Your task to perform on an android device: turn off sleep mode Image 0: 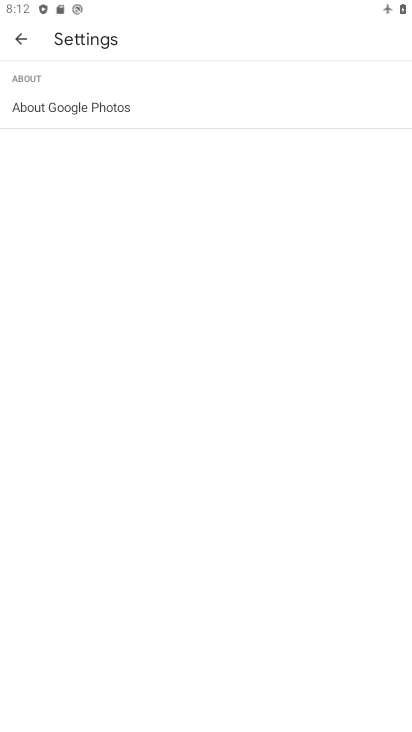
Step 0: press home button
Your task to perform on an android device: turn off sleep mode Image 1: 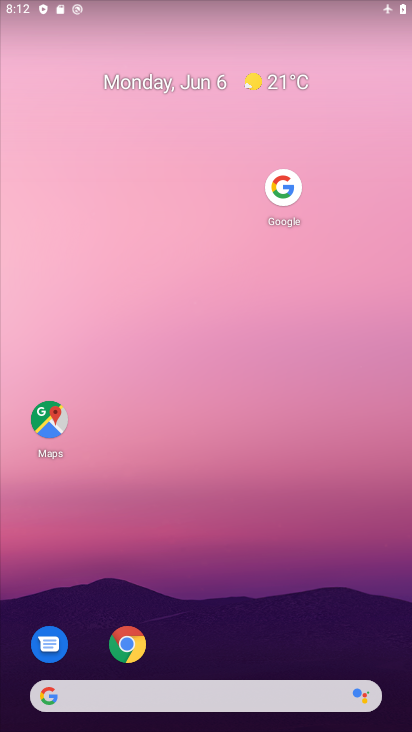
Step 1: drag from (212, 674) to (203, 37)
Your task to perform on an android device: turn off sleep mode Image 2: 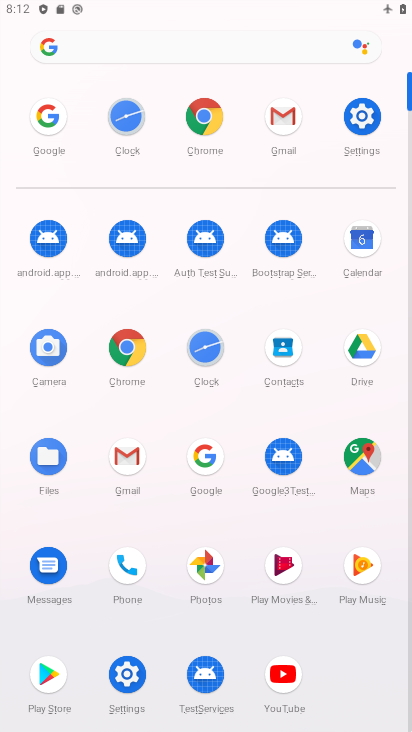
Step 2: click (136, 673)
Your task to perform on an android device: turn off sleep mode Image 3: 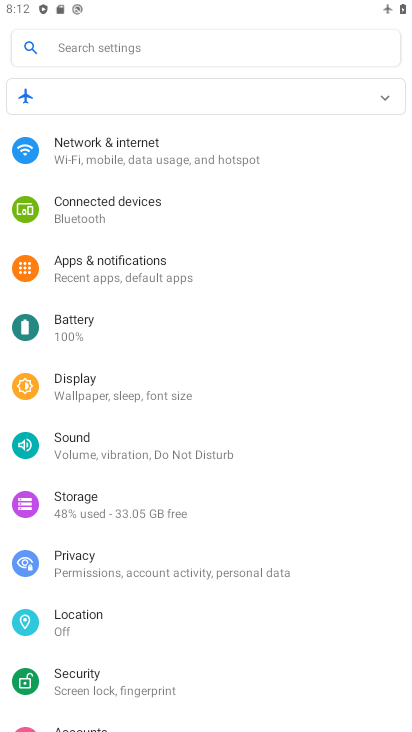
Step 3: task complete